Your task to perform on an android device: delete browsing data in the chrome app Image 0: 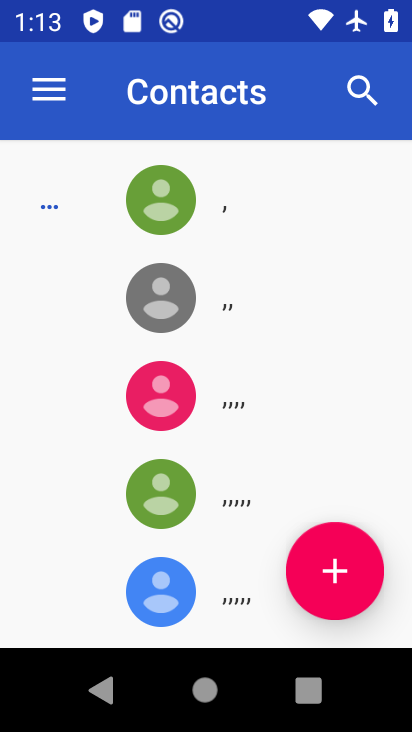
Step 0: press home button
Your task to perform on an android device: delete browsing data in the chrome app Image 1: 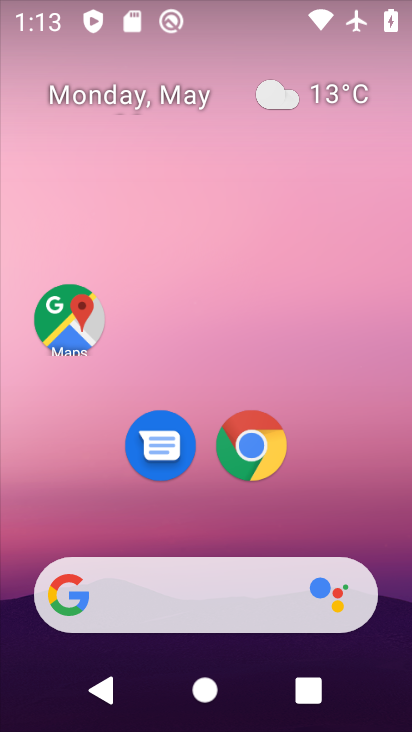
Step 1: drag from (401, 625) to (261, 94)
Your task to perform on an android device: delete browsing data in the chrome app Image 2: 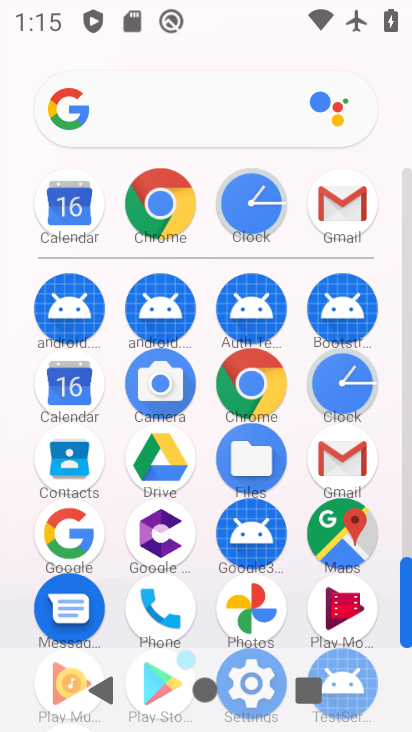
Step 2: click (248, 409)
Your task to perform on an android device: delete browsing data in the chrome app Image 3: 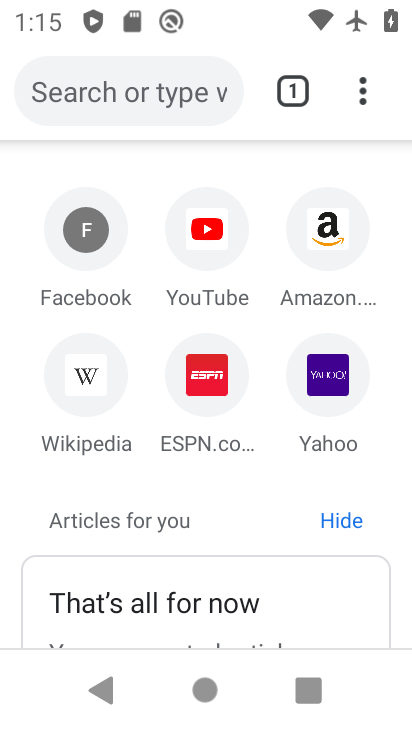
Step 3: click (359, 98)
Your task to perform on an android device: delete browsing data in the chrome app Image 4: 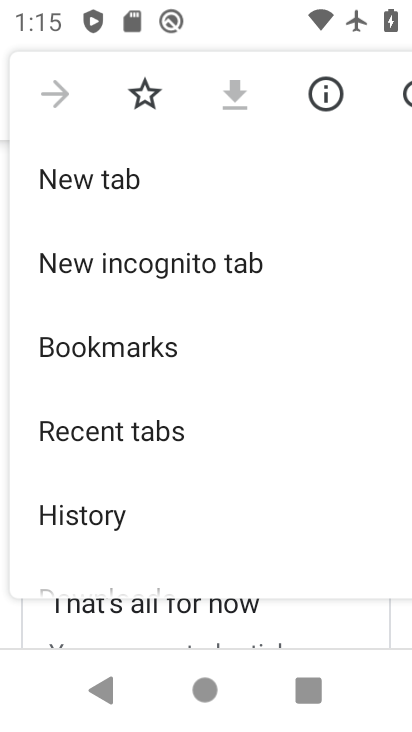
Step 4: click (118, 504)
Your task to perform on an android device: delete browsing data in the chrome app Image 5: 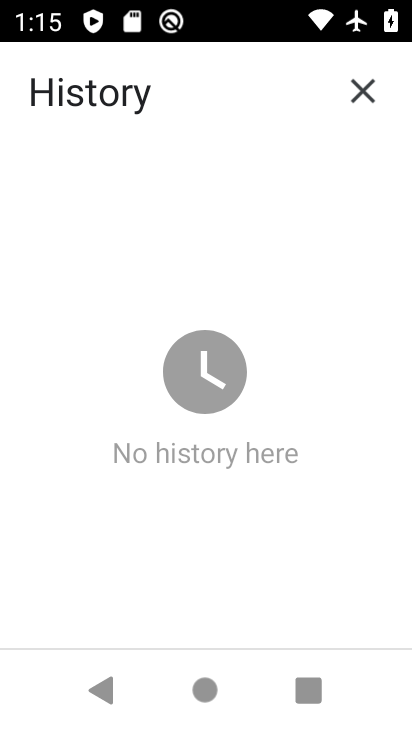
Step 5: task complete